Your task to perform on an android device: change text size in settings app Image 0: 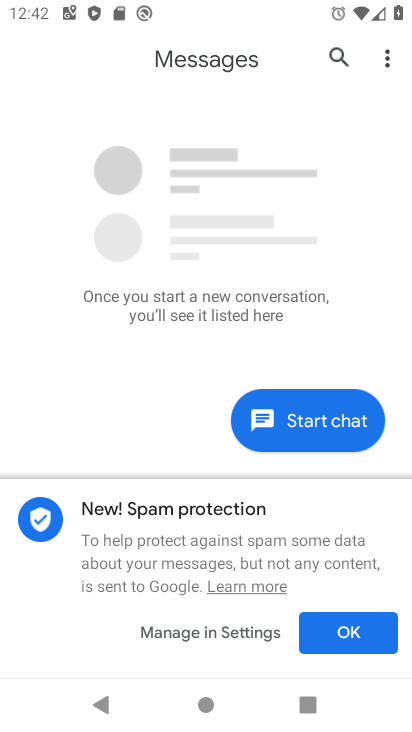
Step 0: press home button
Your task to perform on an android device: change text size in settings app Image 1: 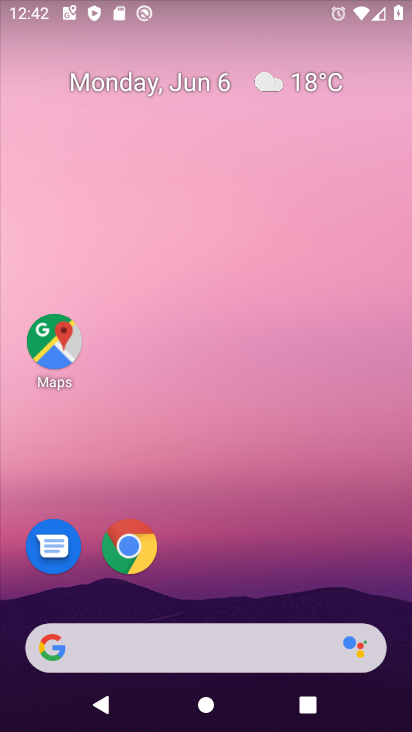
Step 1: drag from (290, 535) to (288, 137)
Your task to perform on an android device: change text size in settings app Image 2: 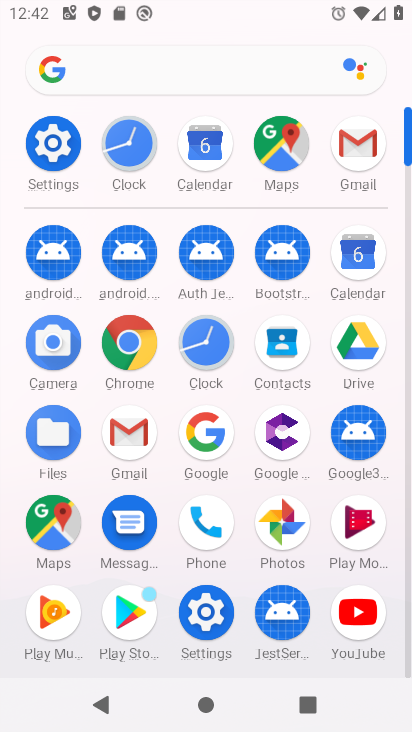
Step 2: click (64, 142)
Your task to perform on an android device: change text size in settings app Image 3: 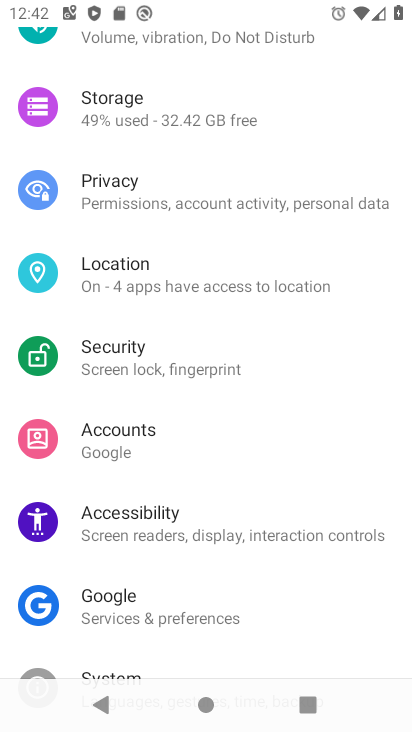
Step 3: drag from (304, 162) to (301, 506)
Your task to perform on an android device: change text size in settings app Image 4: 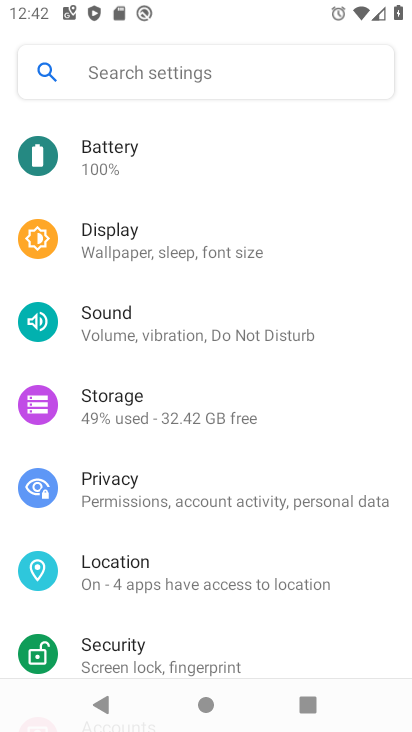
Step 4: click (199, 232)
Your task to perform on an android device: change text size in settings app Image 5: 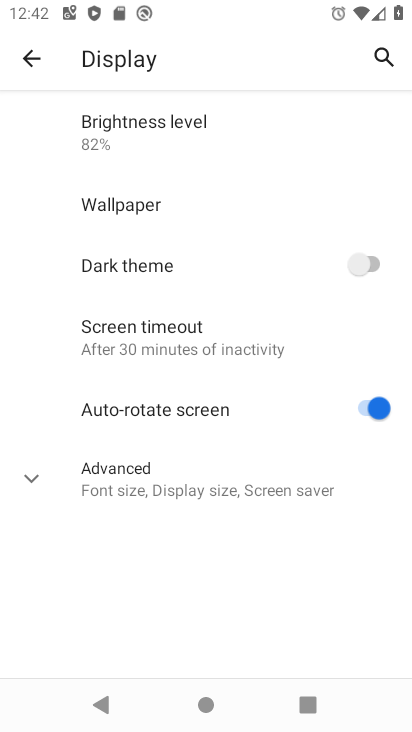
Step 5: click (121, 486)
Your task to perform on an android device: change text size in settings app Image 6: 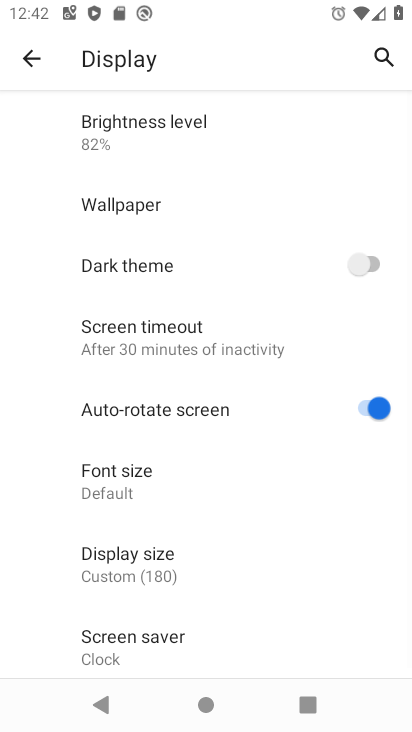
Step 6: click (125, 492)
Your task to perform on an android device: change text size in settings app Image 7: 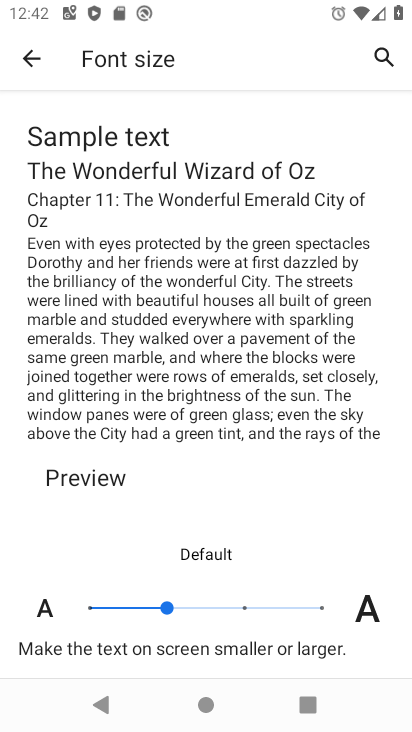
Step 7: click (247, 613)
Your task to perform on an android device: change text size in settings app Image 8: 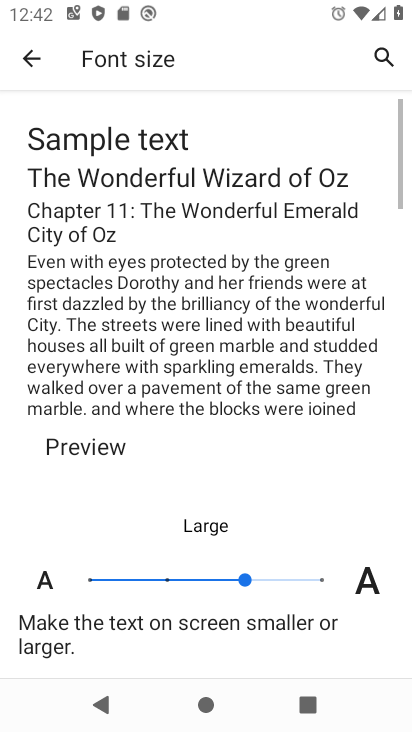
Step 8: task complete